Your task to perform on an android device: turn on the 12-hour format for clock Image 0: 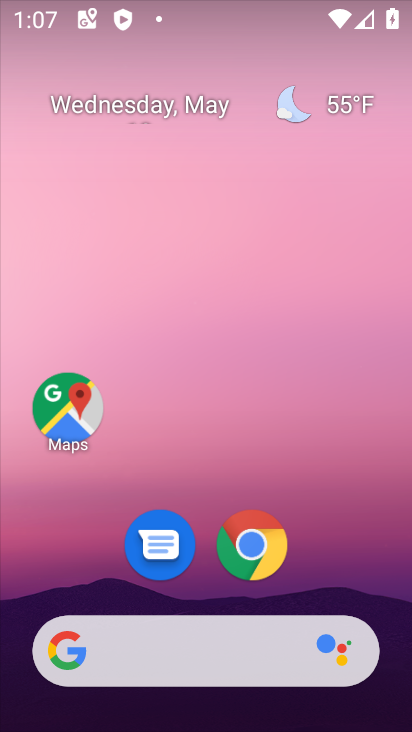
Step 0: drag from (352, 557) to (312, 32)
Your task to perform on an android device: turn on the 12-hour format for clock Image 1: 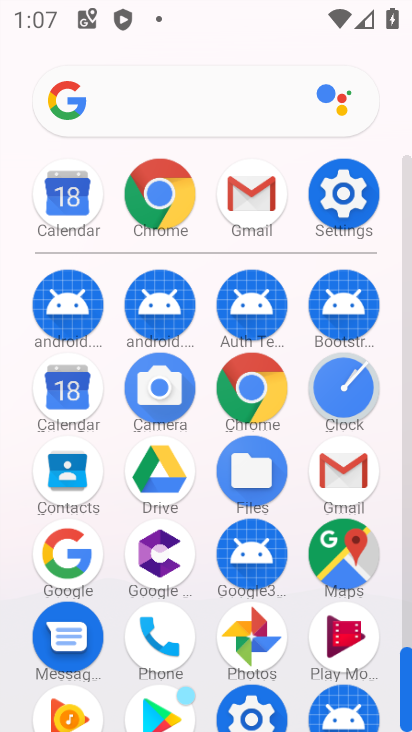
Step 1: click (357, 386)
Your task to perform on an android device: turn on the 12-hour format for clock Image 2: 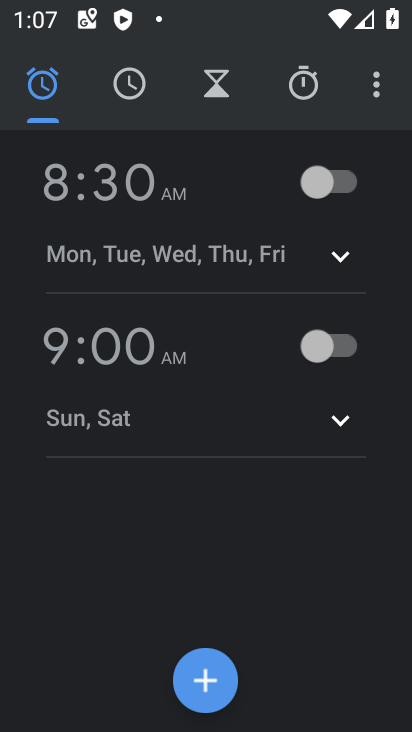
Step 2: click (378, 89)
Your task to perform on an android device: turn on the 12-hour format for clock Image 3: 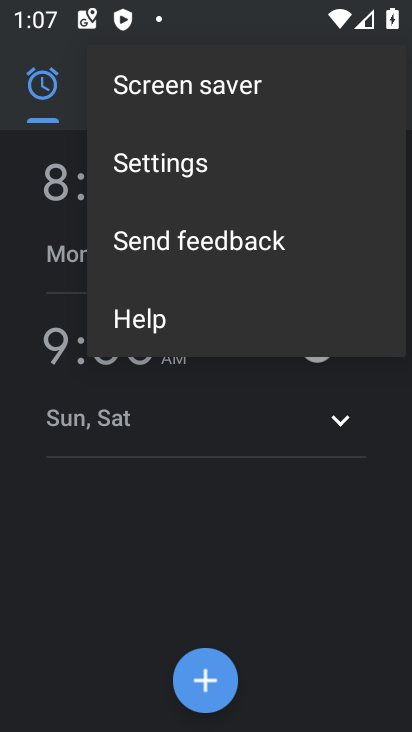
Step 3: click (209, 162)
Your task to perform on an android device: turn on the 12-hour format for clock Image 4: 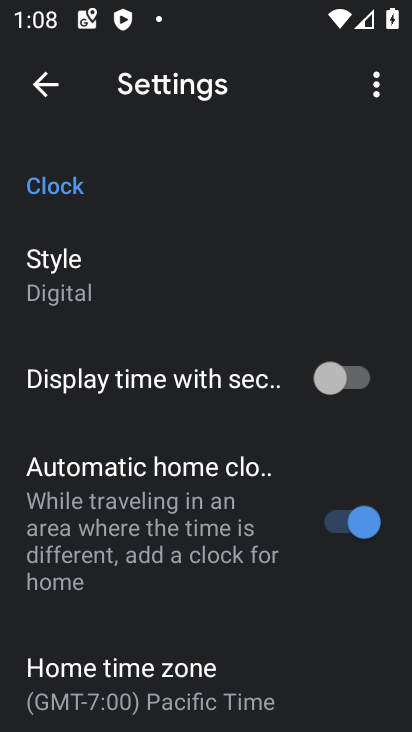
Step 4: drag from (293, 614) to (223, 241)
Your task to perform on an android device: turn on the 12-hour format for clock Image 5: 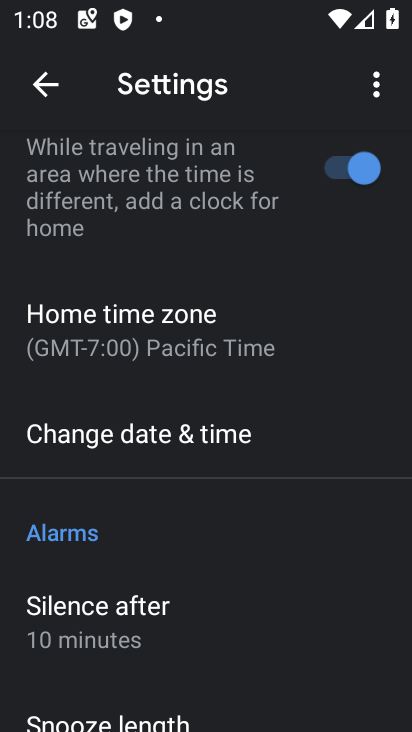
Step 5: click (210, 438)
Your task to perform on an android device: turn on the 12-hour format for clock Image 6: 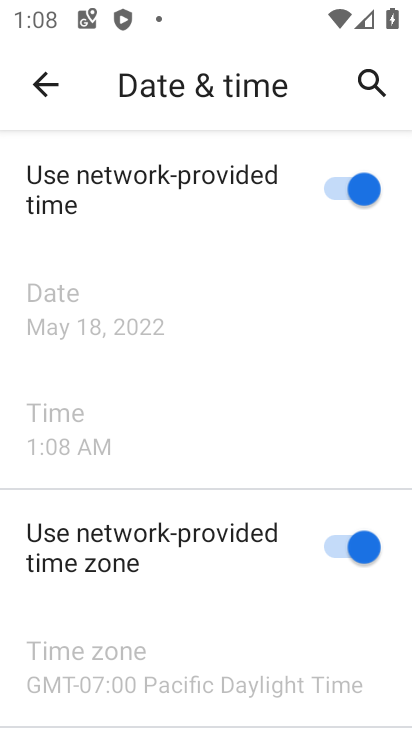
Step 6: task complete